Your task to perform on an android device: Go to notification settings Image 0: 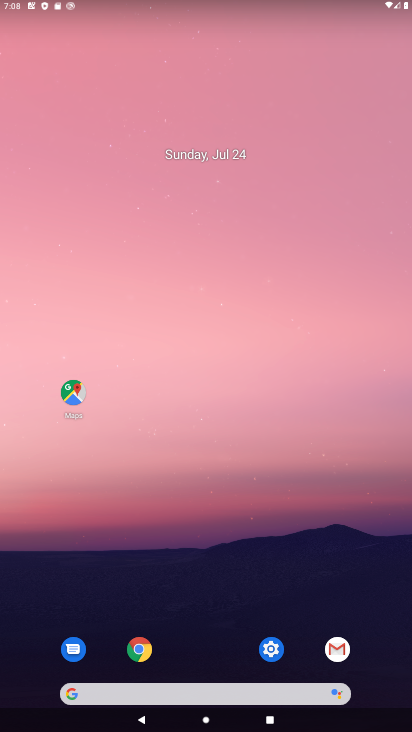
Step 0: click (280, 656)
Your task to perform on an android device: Go to notification settings Image 1: 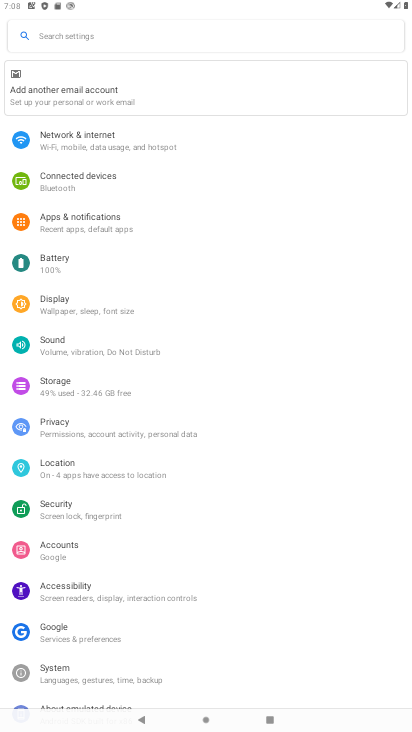
Step 1: click (77, 466)
Your task to perform on an android device: Go to notification settings Image 2: 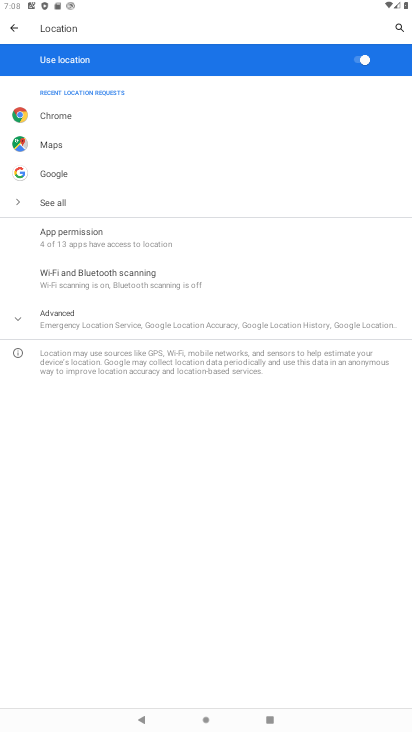
Step 2: click (5, 22)
Your task to perform on an android device: Go to notification settings Image 3: 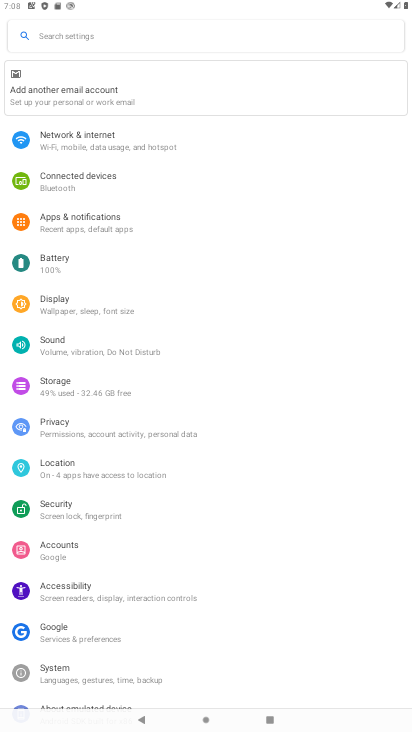
Step 3: click (55, 34)
Your task to perform on an android device: Go to notification settings Image 4: 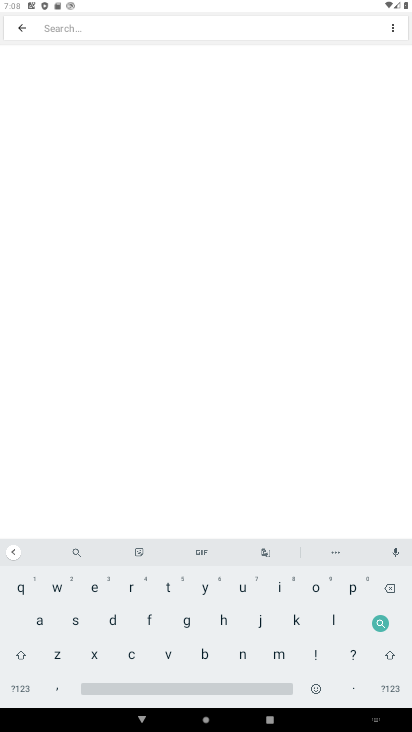
Step 4: click (246, 649)
Your task to perform on an android device: Go to notification settings Image 5: 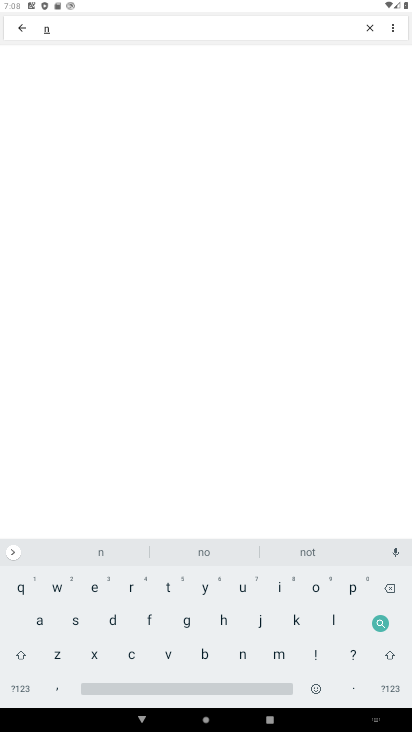
Step 5: click (313, 586)
Your task to perform on an android device: Go to notification settings Image 6: 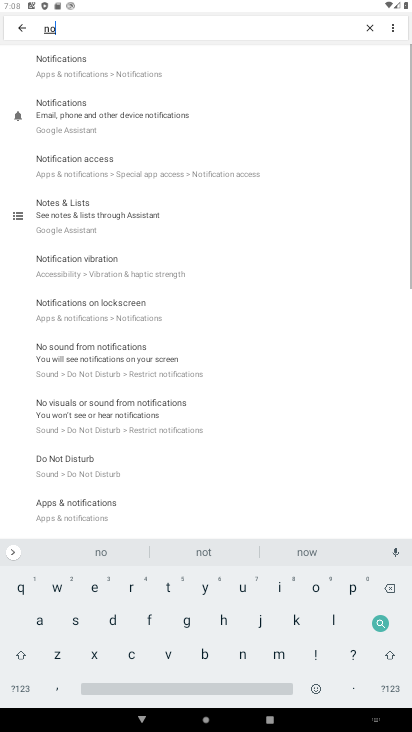
Step 6: click (110, 64)
Your task to perform on an android device: Go to notification settings Image 7: 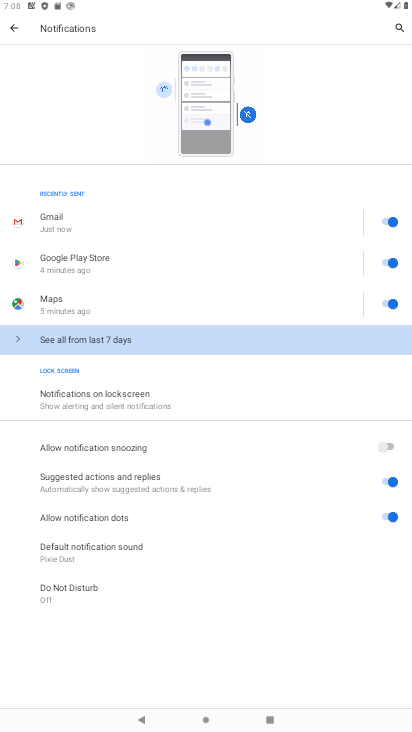
Step 7: click (128, 397)
Your task to perform on an android device: Go to notification settings Image 8: 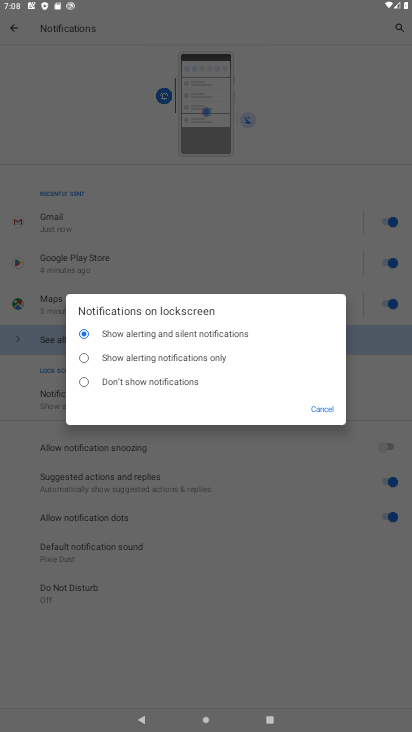
Step 8: task complete